Your task to perform on an android device: turn on wifi Image 0: 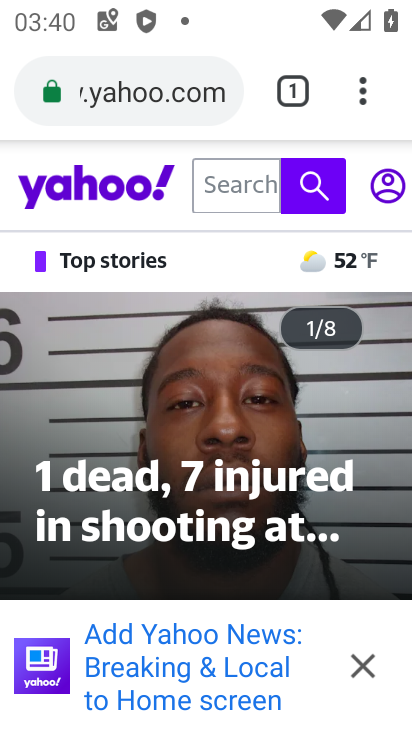
Step 0: press home button
Your task to perform on an android device: turn on wifi Image 1: 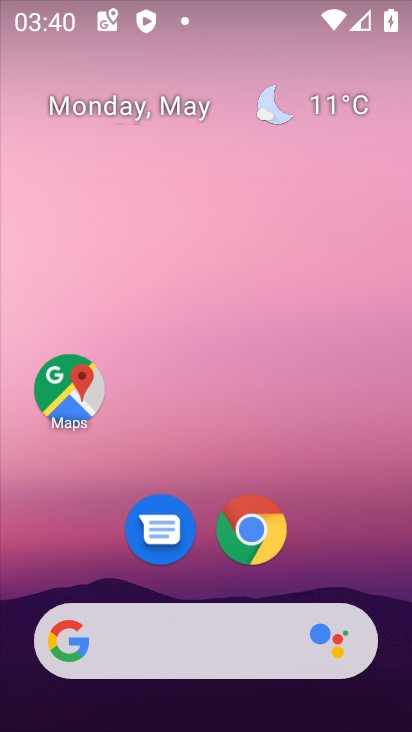
Step 1: drag from (345, 541) to (221, 81)
Your task to perform on an android device: turn on wifi Image 2: 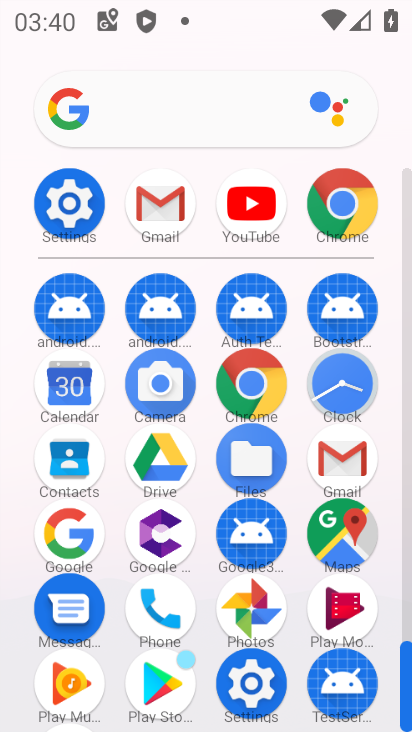
Step 2: click (82, 197)
Your task to perform on an android device: turn on wifi Image 3: 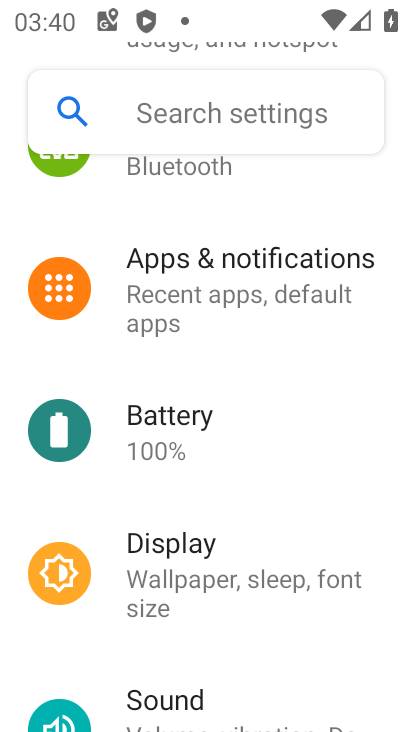
Step 3: drag from (265, 251) to (285, 692)
Your task to perform on an android device: turn on wifi Image 4: 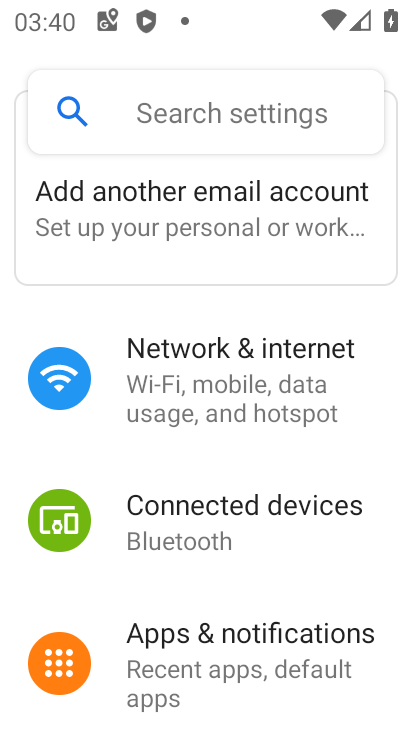
Step 4: click (238, 413)
Your task to perform on an android device: turn on wifi Image 5: 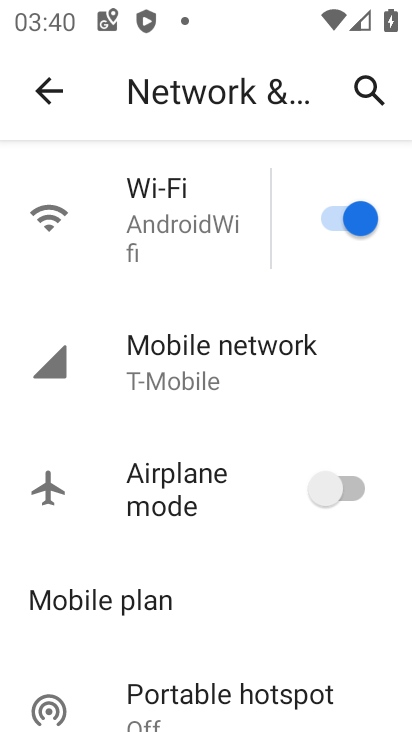
Step 5: click (189, 225)
Your task to perform on an android device: turn on wifi Image 6: 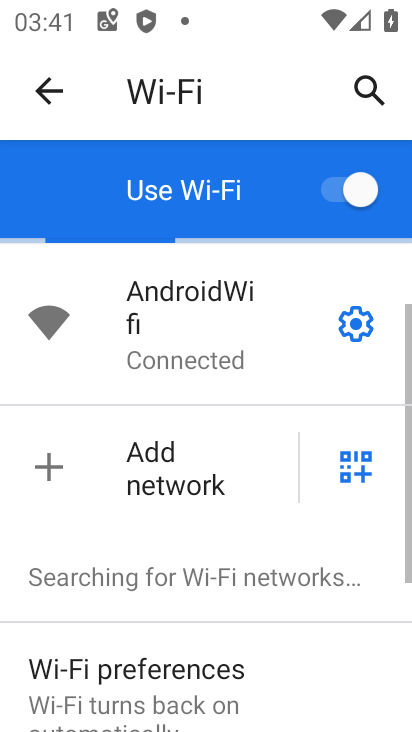
Step 6: task complete